Your task to perform on an android device: toggle show notifications on the lock screen Image 0: 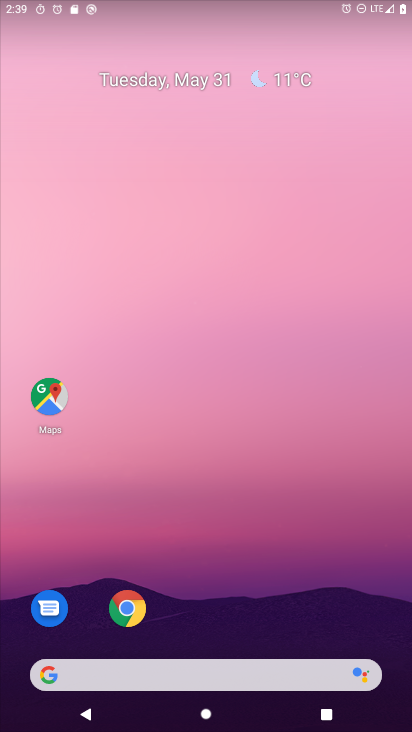
Step 0: drag from (299, 624) to (315, 14)
Your task to perform on an android device: toggle show notifications on the lock screen Image 1: 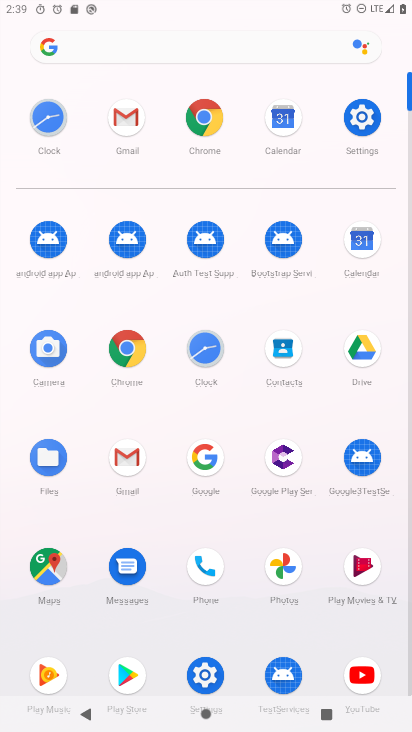
Step 1: click (364, 126)
Your task to perform on an android device: toggle show notifications on the lock screen Image 2: 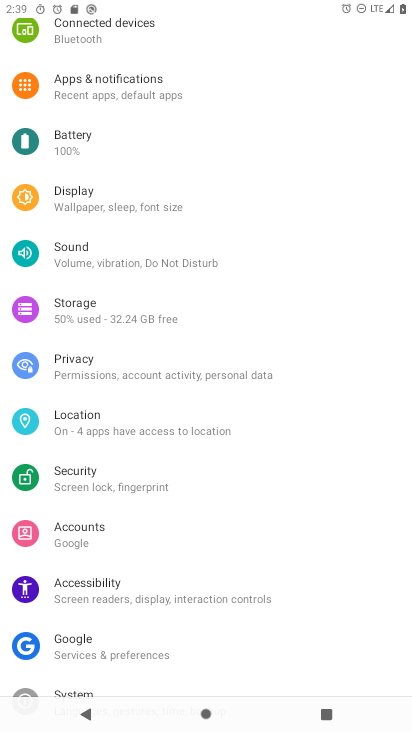
Step 2: click (110, 86)
Your task to perform on an android device: toggle show notifications on the lock screen Image 3: 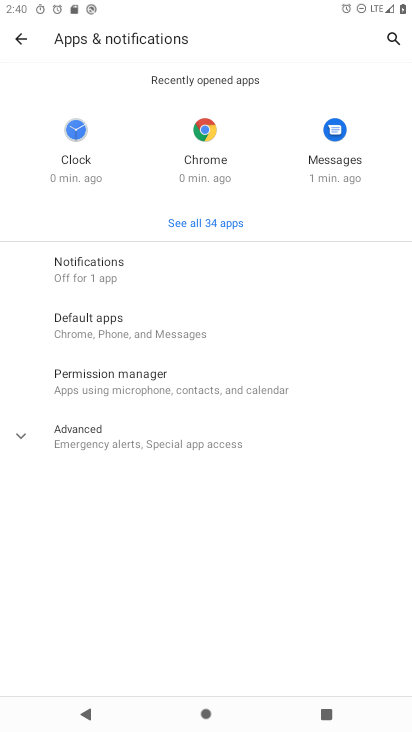
Step 3: click (82, 273)
Your task to perform on an android device: toggle show notifications on the lock screen Image 4: 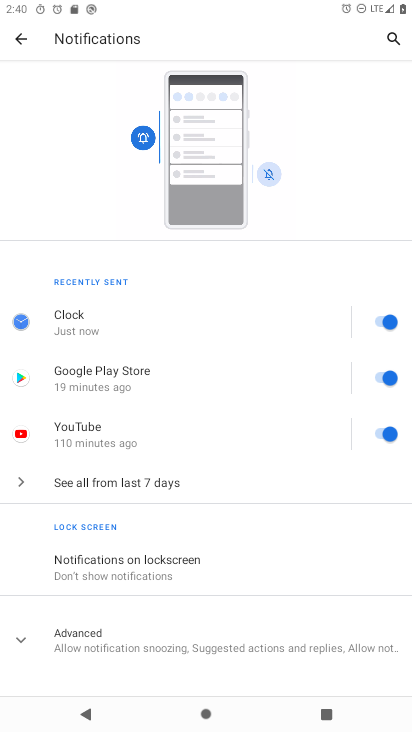
Step 4: click (97, 579)
Your task to perform on an android device: toggle show notifications on the lock screen Image 5: 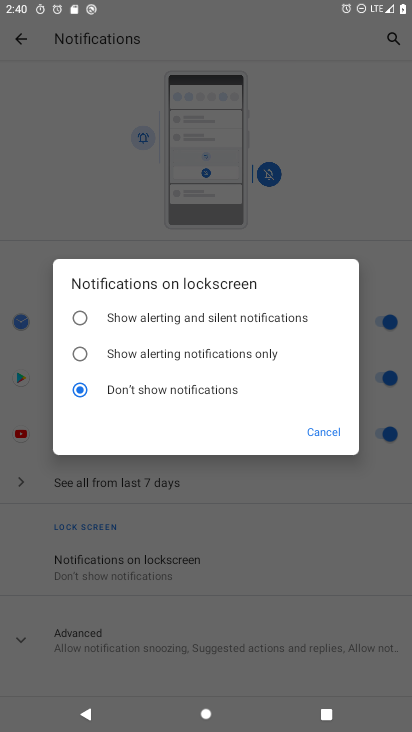
Step 5: click (78, 314)
Your task to perform on an android device: toggle show notifications on the lock screen Image 6: 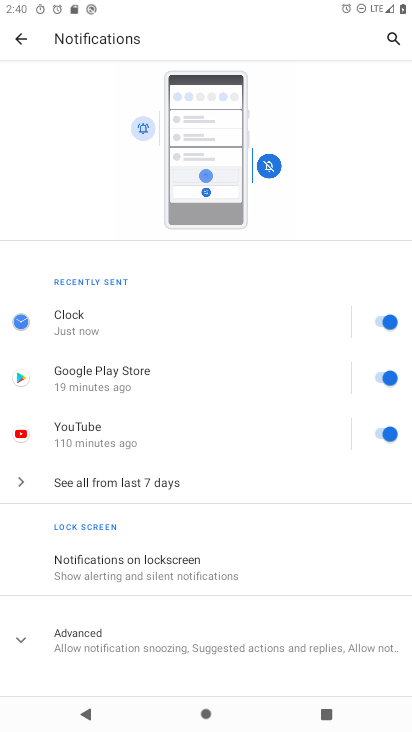
Step 6: task complete